Your task to perform on an android device: check data usage Image 0: 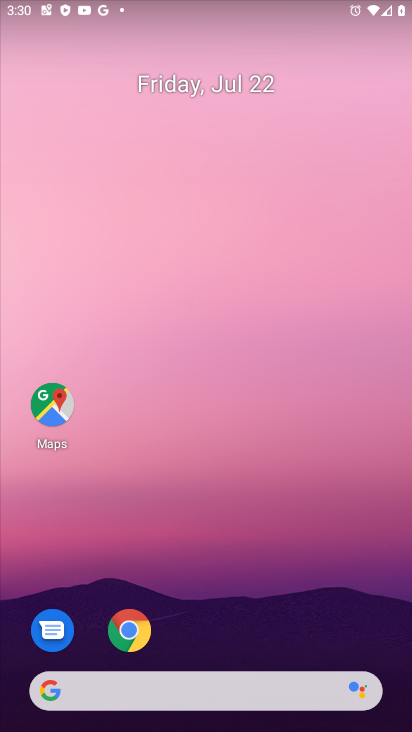
Step 0: drag from (156, 696) to (201, 90)
Your task to perform on an android device: check data usage Image 1: 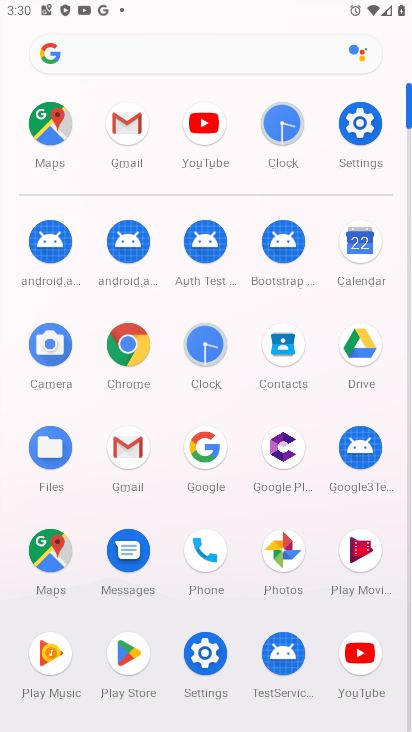
Step 1: click (365, 115)
Your task to perform on an android device: check data usage Image 2: 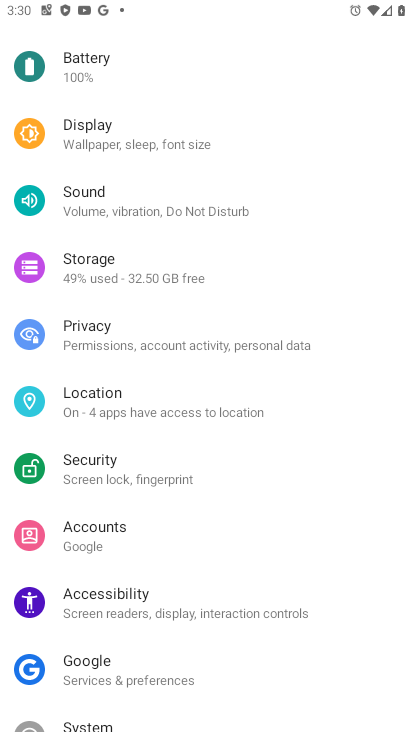
Step 2: drag from (134, 123) to (95, 631)
Your task to perform on an android device: check data usage Image 3: 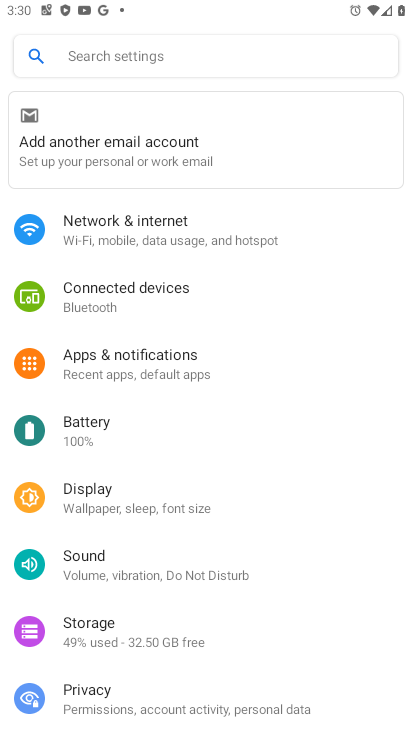
Step 3: click (144, 222)
Your task to perform on an android device: check data usage Image 4: 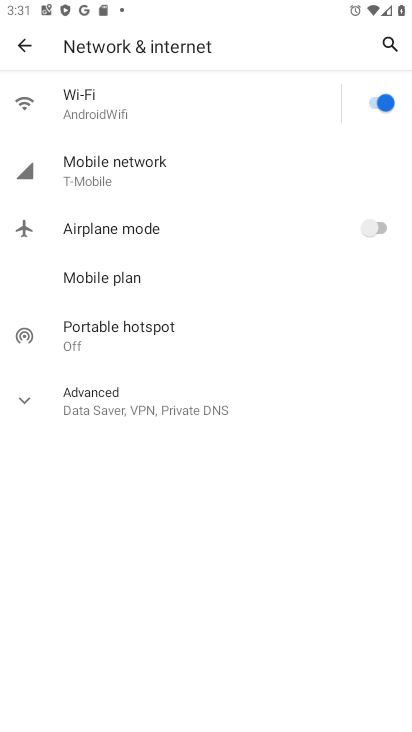
Step 4: click (109, 153)
Your task to perform on an android device: check data usage Image 5: 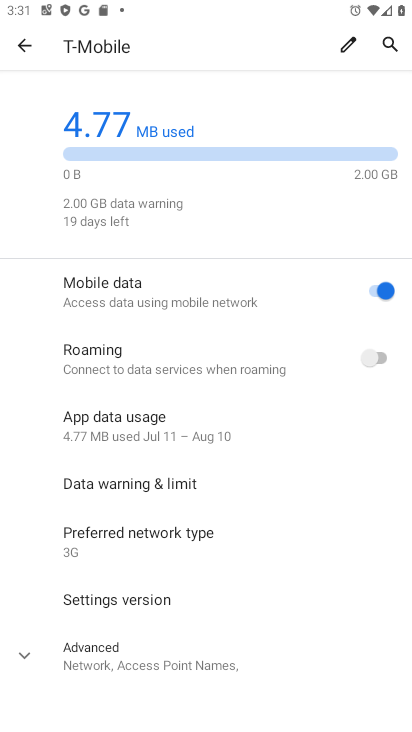
Step 5: task complete